Your task to perform on an android device: turn off sleep mode Image 0: 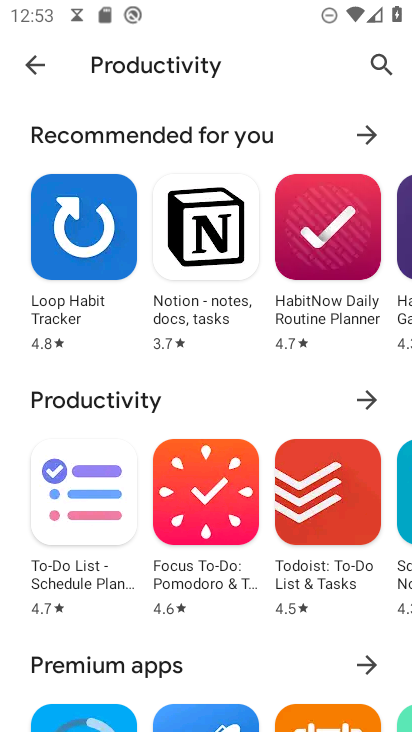
Step 0: press home button
Your task to perform on an android device: turn off sleep mode Image 1: 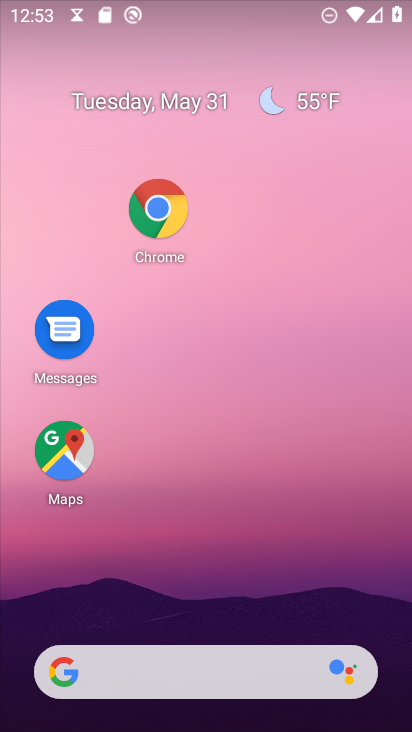
Step 1: drag from (251, 562) to (217, 139)
Your task to perform on an android device: turn off sleep mode Image 2: 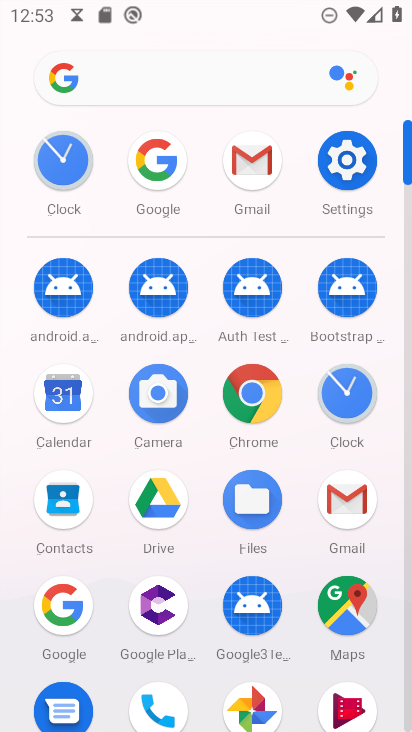
Step 2: click (340, 179)
Your task to perform on an android device: turn off sleep mode Image 3: 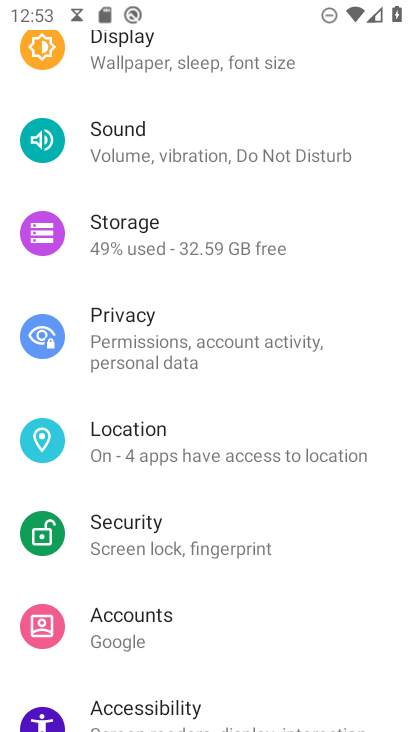
Step 3: drag from (221, 108) to (226, 296)
Your task to perform on an android device: turn off sleep mode Image 4: 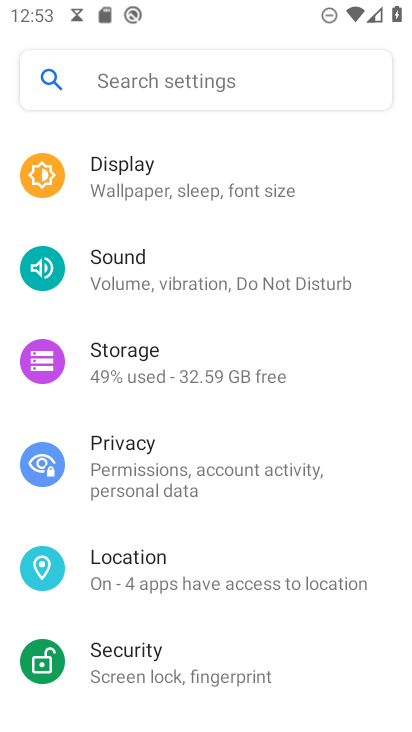
Step 4: click (172, 197)
Your task to perform on an android device: turn off sleep mode Image 5: 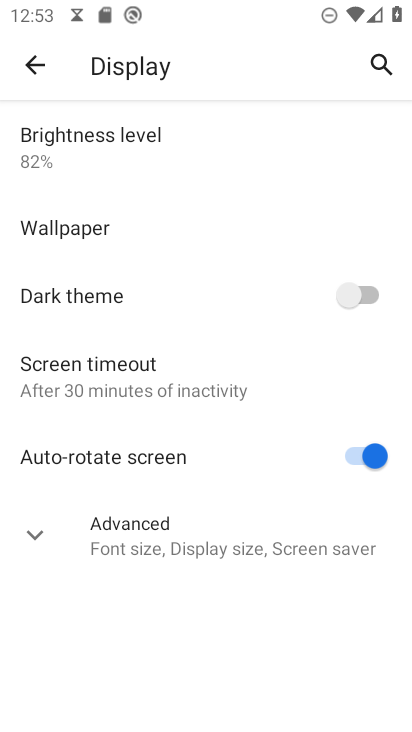
Step 5: click (109, 543)
Your task to perform on an android device: turn off sleep mode Image 6: 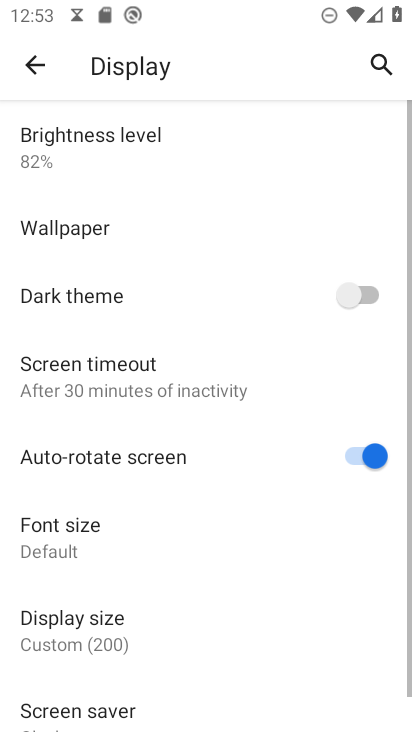
Step 6: task complete